Your task to perform on an android device: turn vacation reply on in the gmail app Image 0: 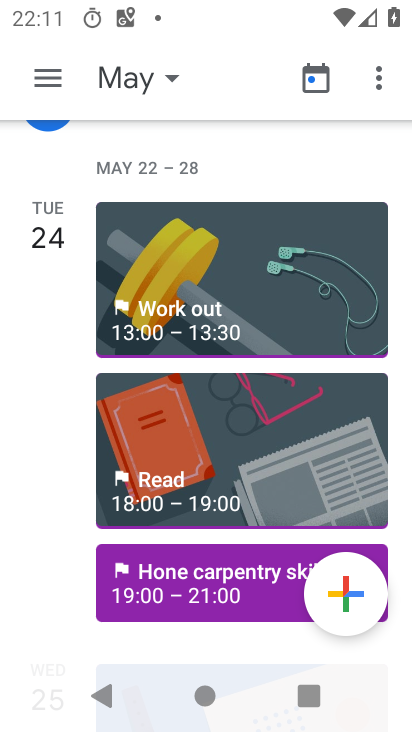
Step 0: press home button
Your task to perform on an android device: turn vacation reply on in the gmail app Image 1: 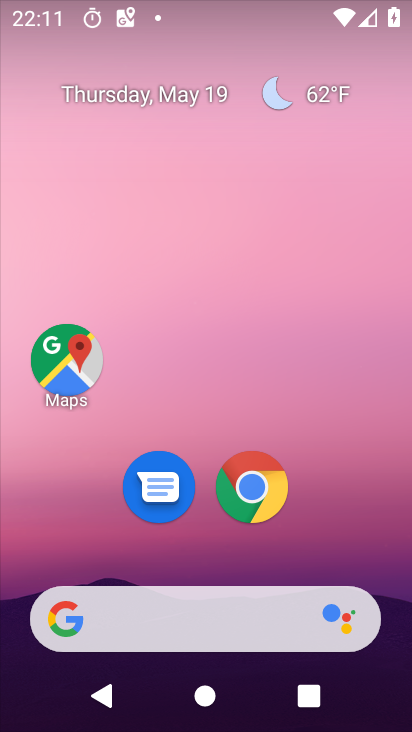
Step 1: drag from (330, 527) to (264, 120)
Your task to perform on an android device: turn vacation reply on in the gmail app Image 2: 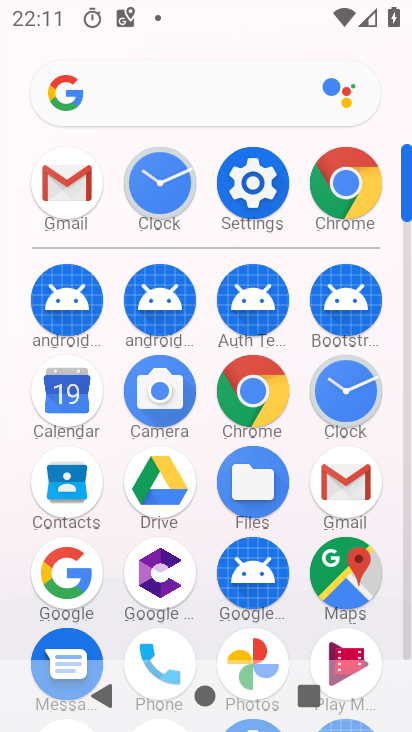
Step 2: click (74, 201)
Your task to perform on an android device: turn vacation reply on in the gmail app Image 3: 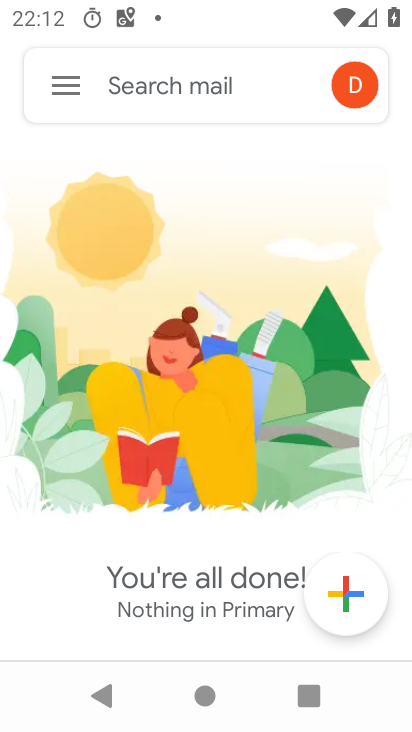
Step 3: click (65, 87)
Your task to perform on an android device: turn vacation reply on in the gmail app Image 4: 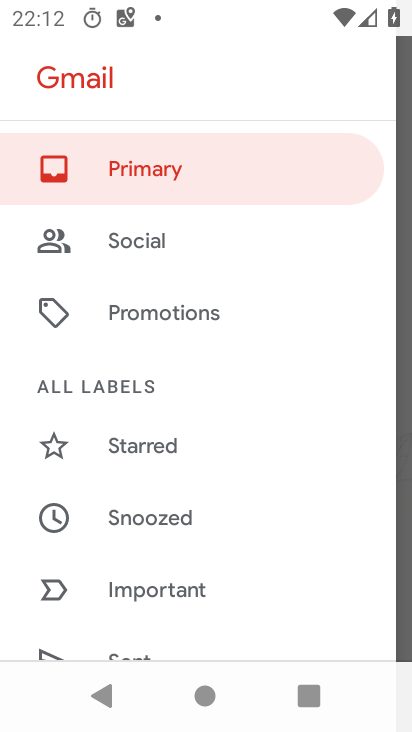
Step 4: drag from (291, 615) to (262, 282)
Your task to perform on an android device: turn vacation reply on in the gmail app Image 5: 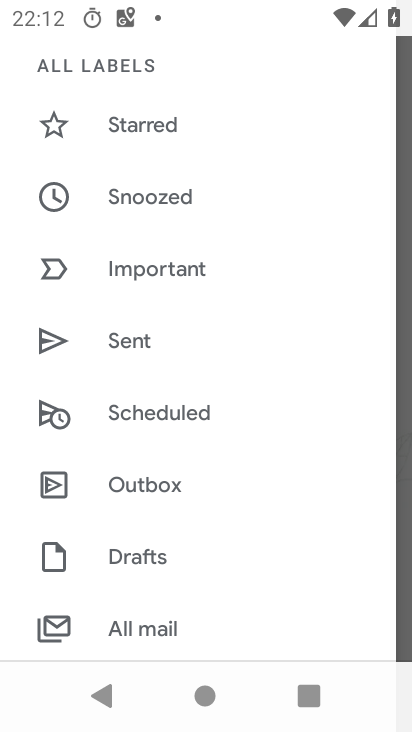
Step 5: drag from (237, 595) to (237, 171)
Your task to perform on an android device: turn vacation reply on in the gmail app Image 6: 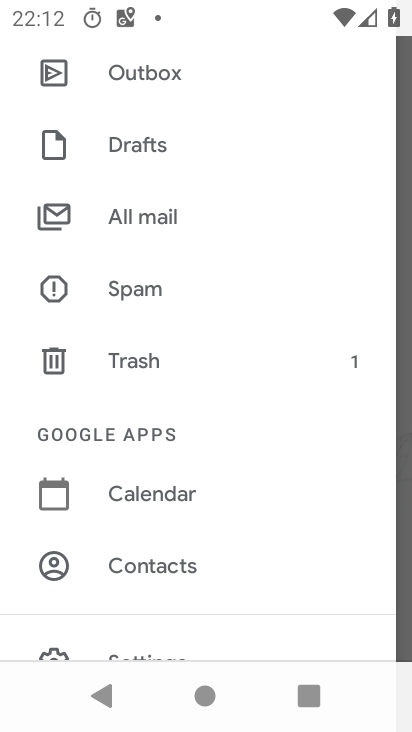
Step 6: drag from (248, 583) to (244, 293)
Your task to perform on an android device: turn vacation reply on in the gmail app Image 7: 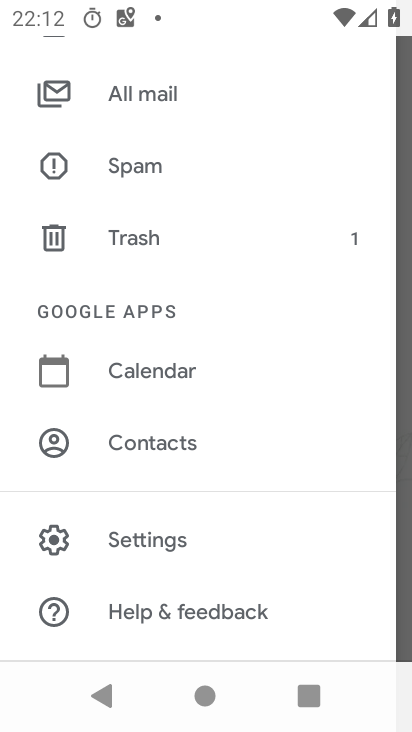
Step 7: click (205, 533)
Your task to perform on an android device: turn vacation reply on in the gmail app Image 8: 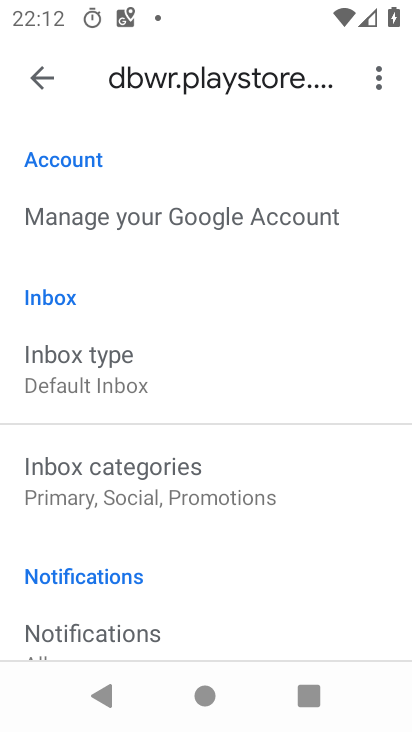
Step 8: drag from (261, 573) to (235, 172)
Your task to perform on an android device: turn vacation reply on in the gmail app Image 9: 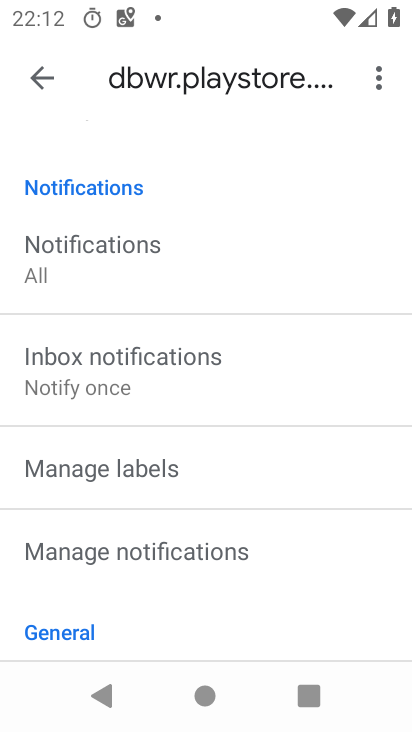
Step 9: drag from (282, 623) to (294, 277)
Your task to perform on an android device: turn vacation reply on in the gmail app Image 10: 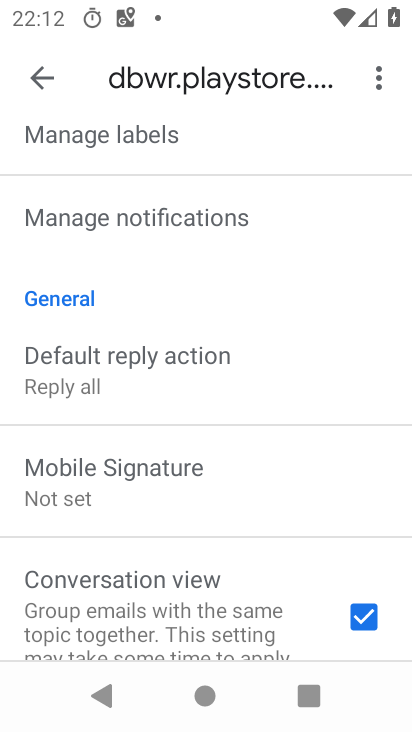
Step 10: drag from (243, 543) to (229, 259)
Your task to perform on an android device: turn vacation reply on in the gmail app Image 11: 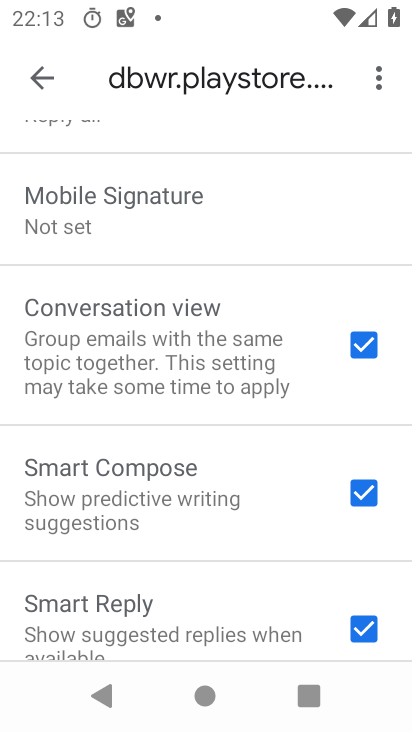
Step 11: drag from (223, 599) to (220, 249)
Your task to perform on an android device: turn vacation reply on in the gmail app Image 12: 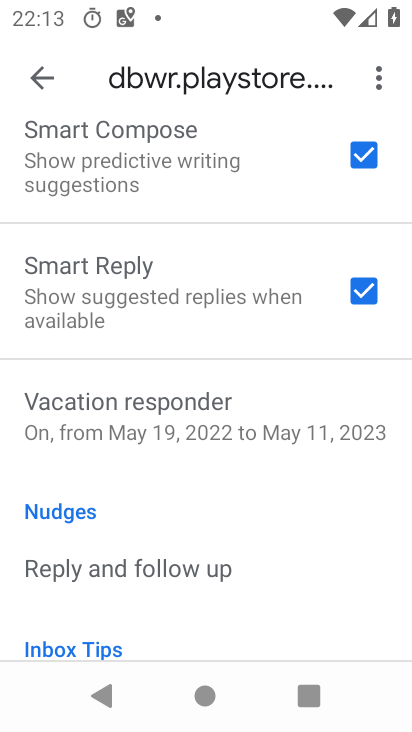
Step 12: click (267, 434)
Your task to perform on an android device: turn vacation reply on in the gmail app Image 13: 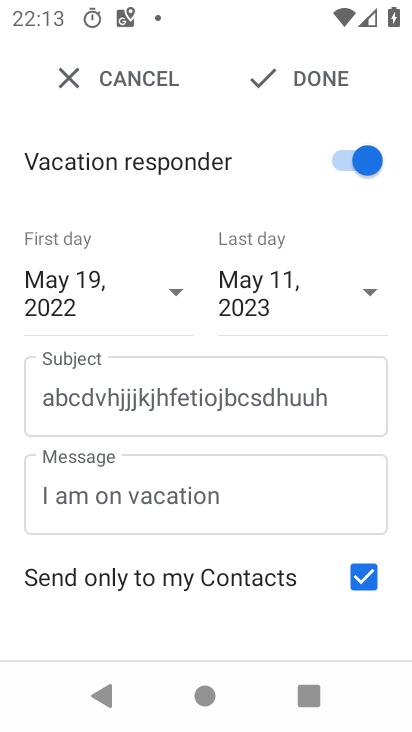
Step 13: click (331, 84)
Your task to perform on an android device: turn vacation reply on in the gmail app Image 14: 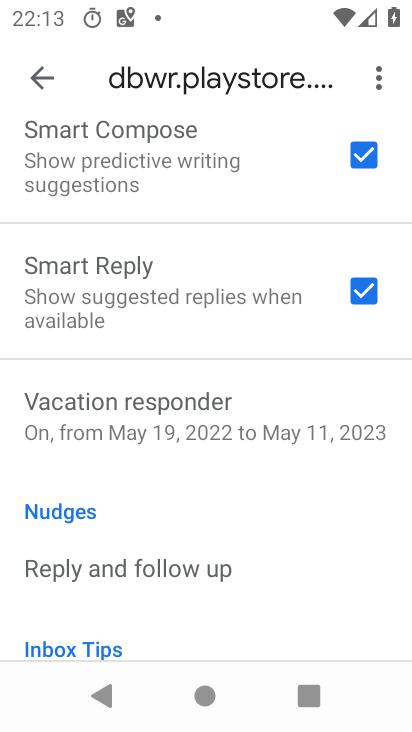
Step 14: task complete